Your task to perform on an android device: open app "File Manager" (install if not already installed) Image 0: 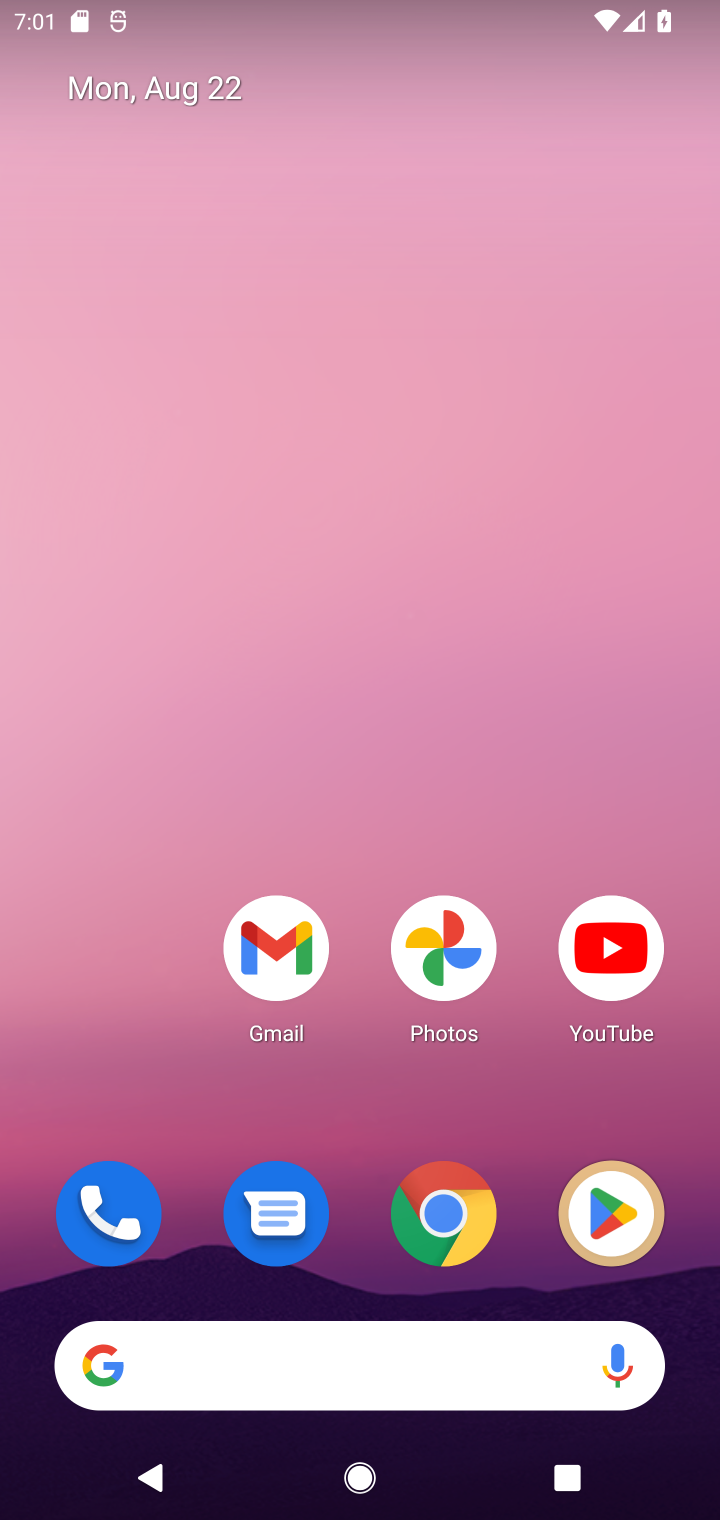
Step 0: click (602, 1206)
Your task to perform on an android device: open app "File Manager" (install if not already installed) Image 1: 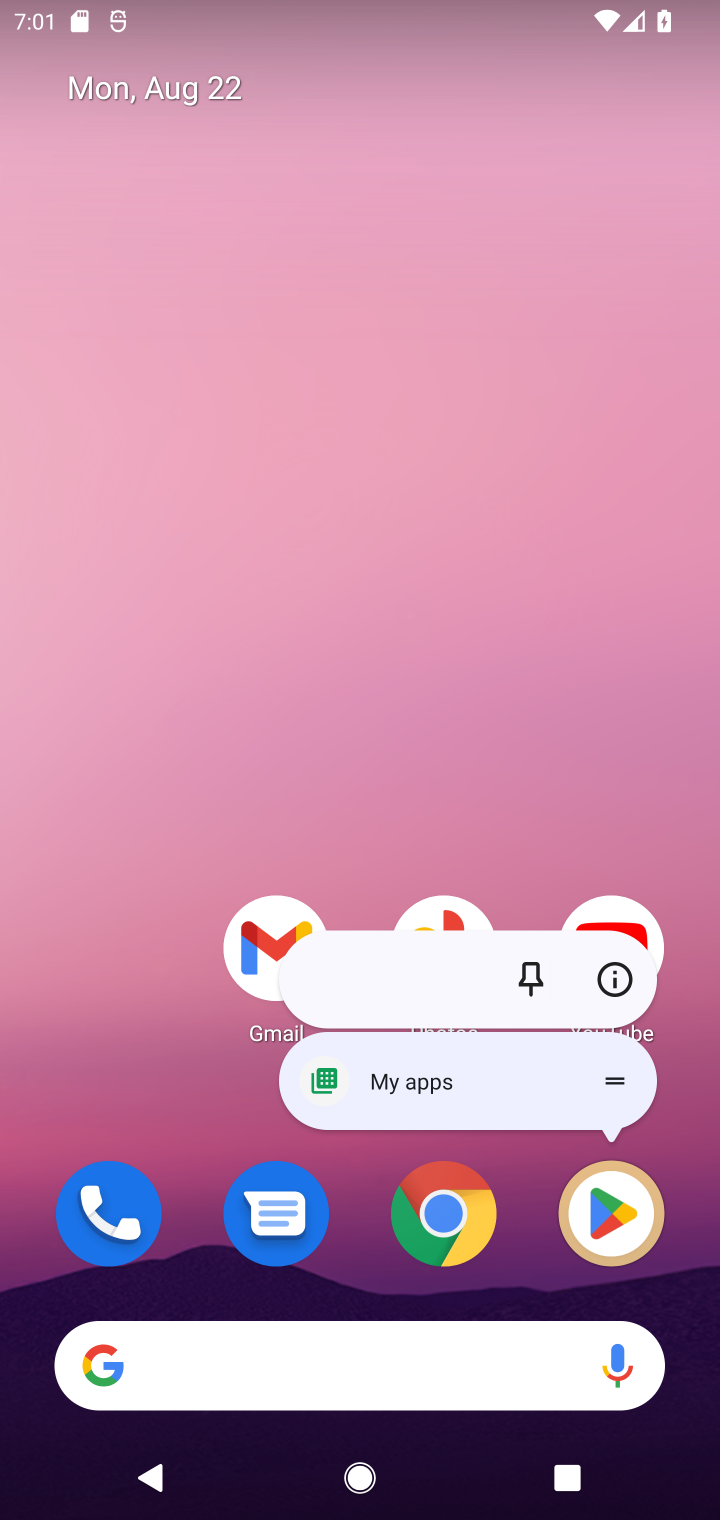
Step 1: click (604, 1190)
Your task to perform on an android device: open app "File Manager" (install if not already installed) Image 2: 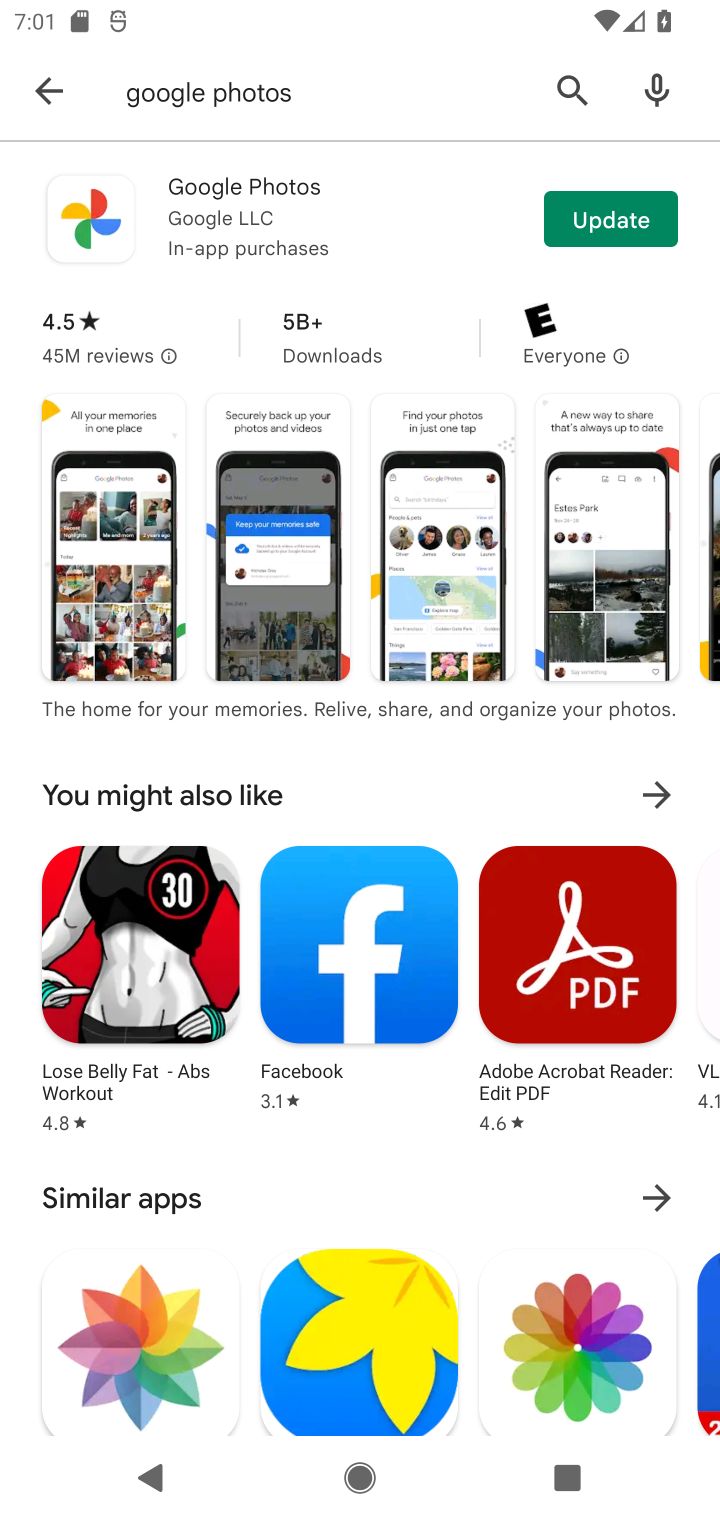
Step 2: click (557, 93)
Your task to perform on an android device: open app "File Manager" (install if not already installed) Image 3: 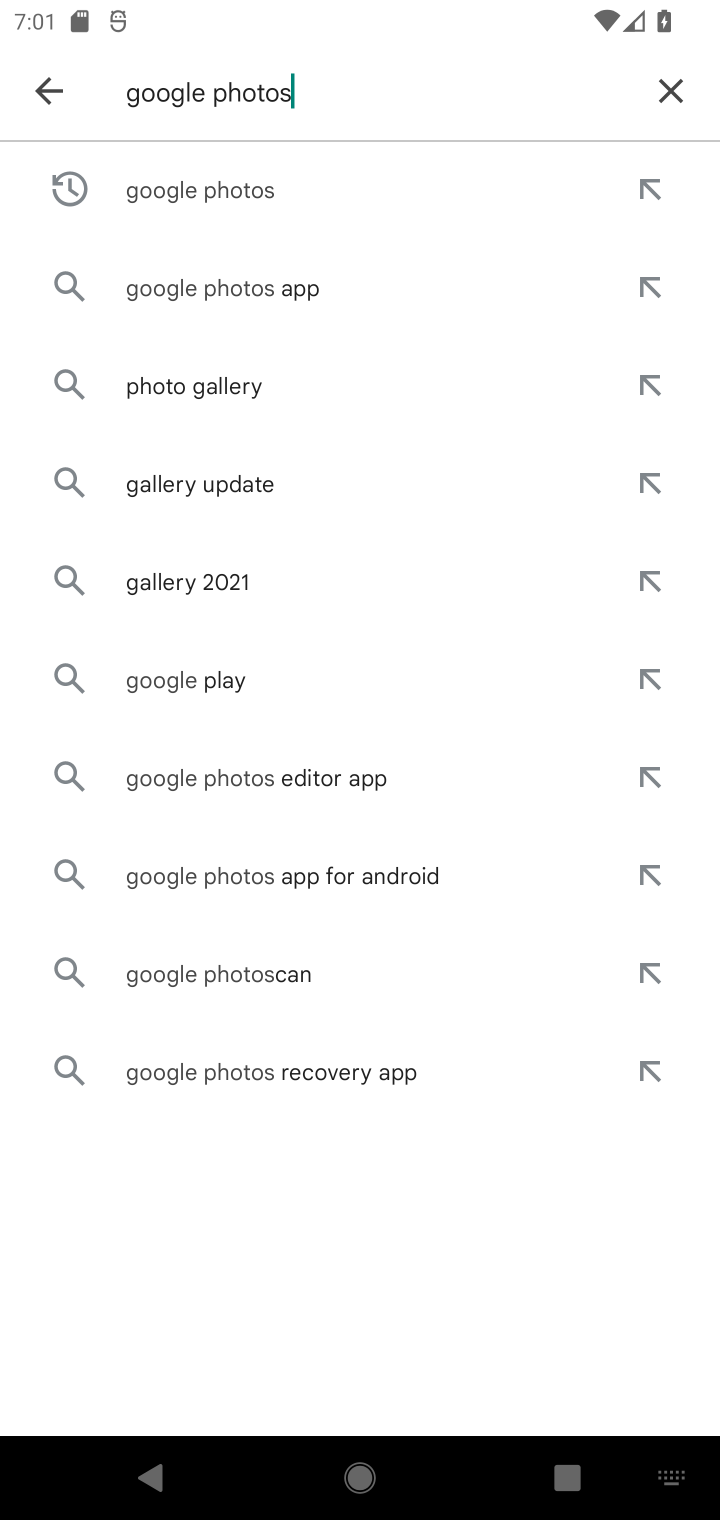
Step 3: click (654, 77)
Your task to perform on an android device: open app "File Manager" (install if not already installed) Image 4: 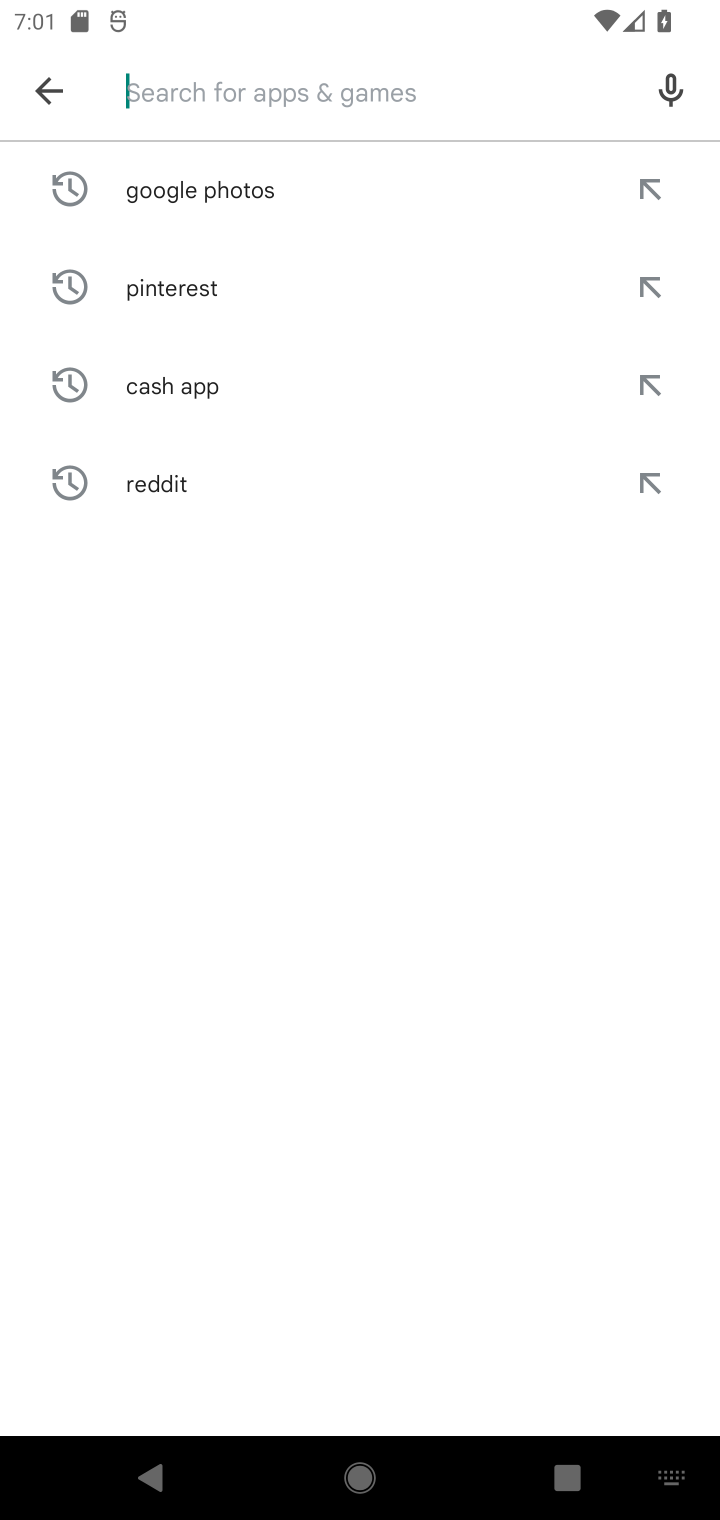
Step 4: type "File Manager"
Your task to perform on an android device: open app "File Manager" (install if not already installed) Image 5: 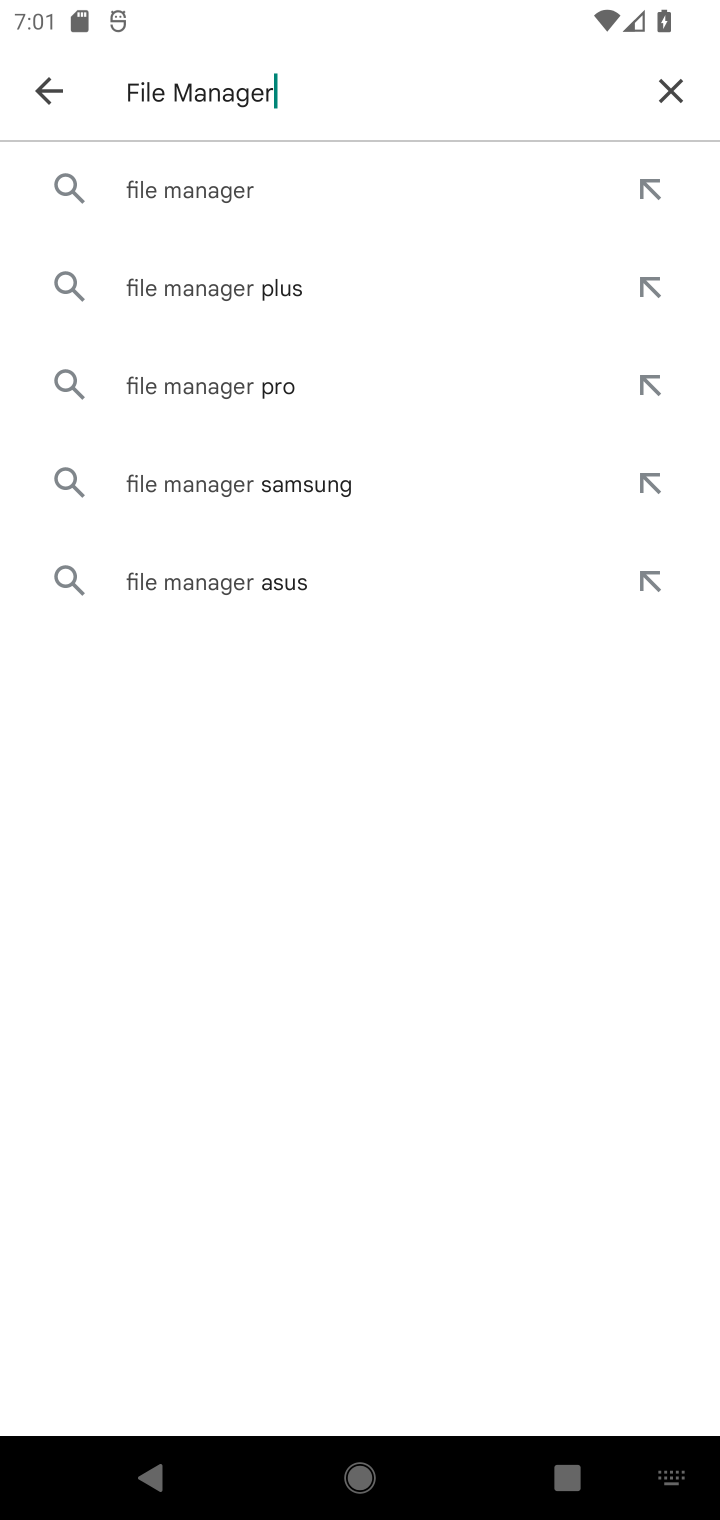
Step 5: click (175, 184)
Your task to perform on an android device: open app "File Manager" (install if not already installed) Image 6: 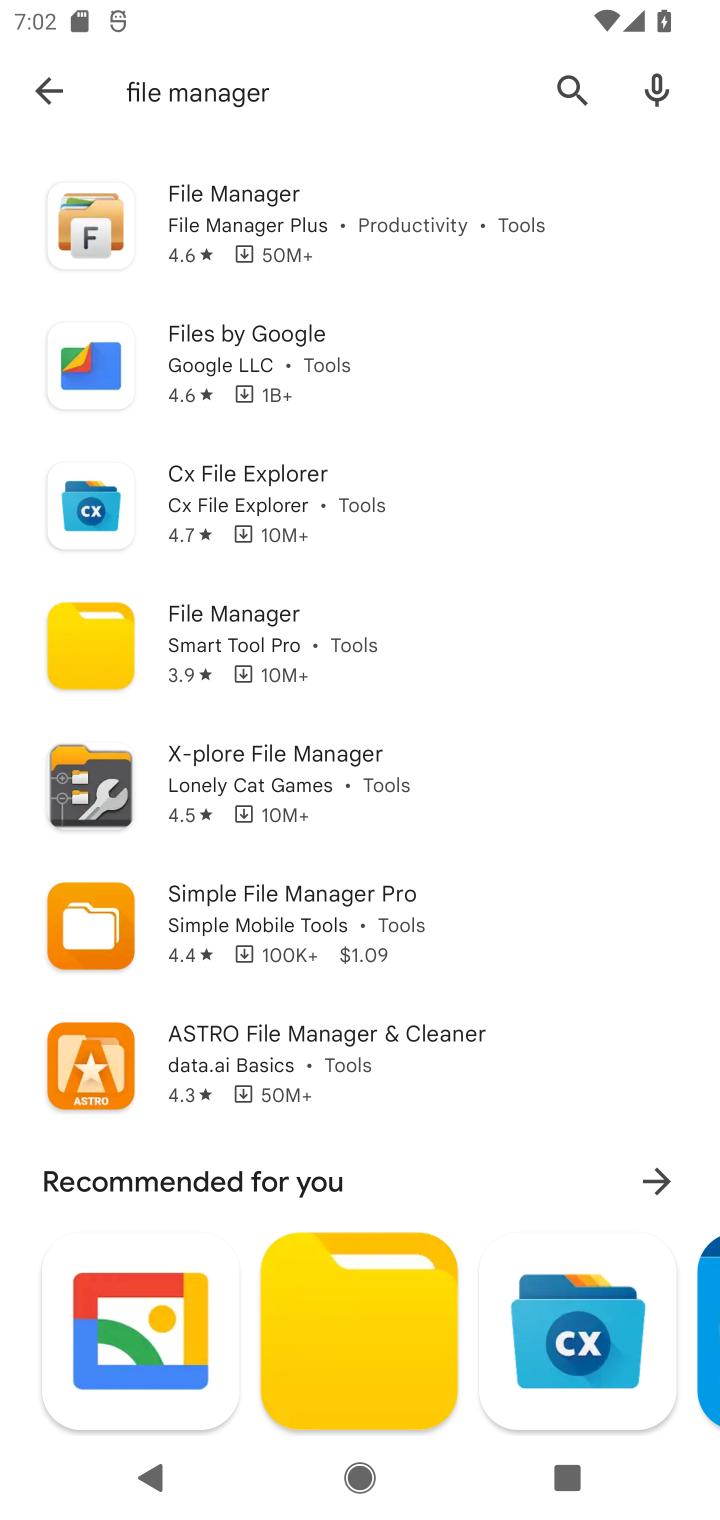
Step 6: click (183, 673)
Your task to perform on an android device: open app "File Manager" (install if not already installed) Image 7: 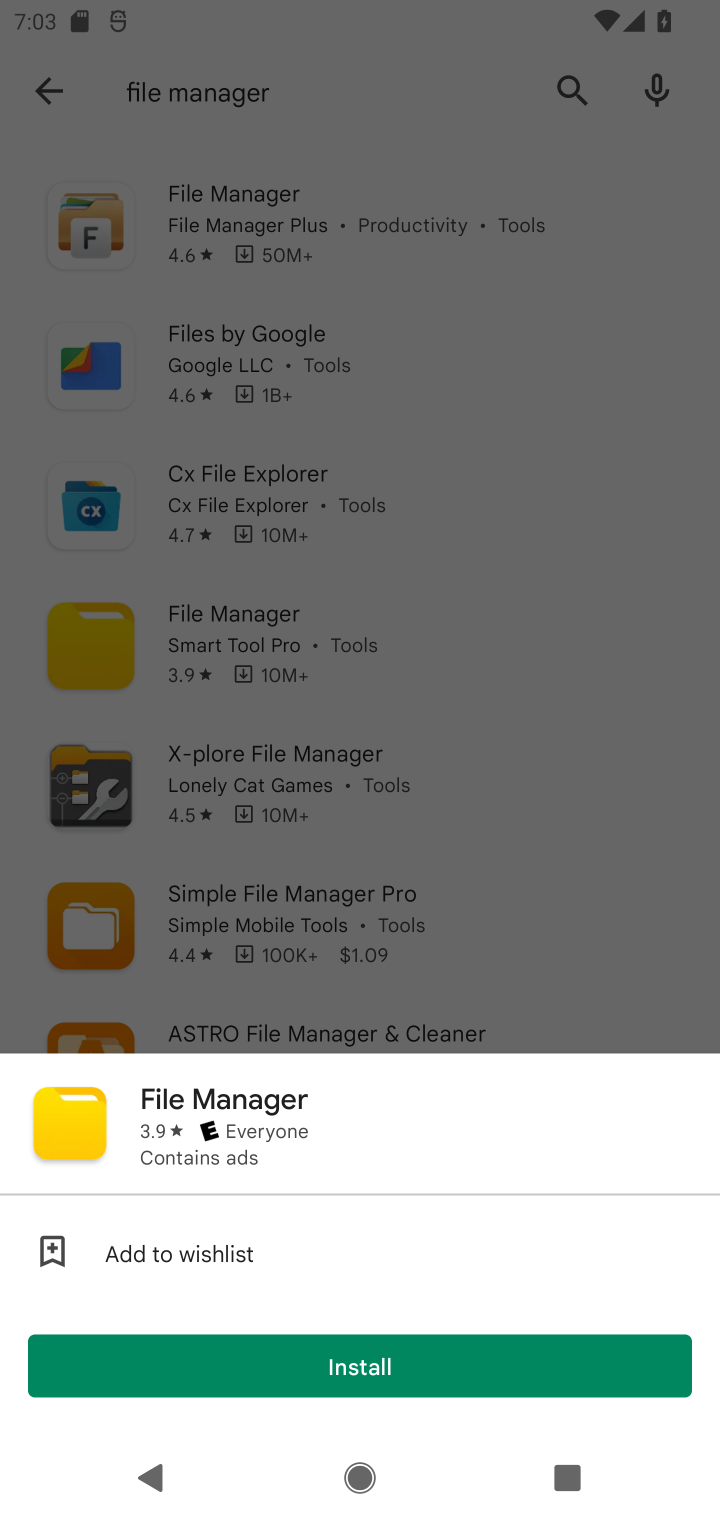
Step 7: click (399, 1378)
Your task to perform on an android device: open app "File Manager" (install if not already installed) Image 8: 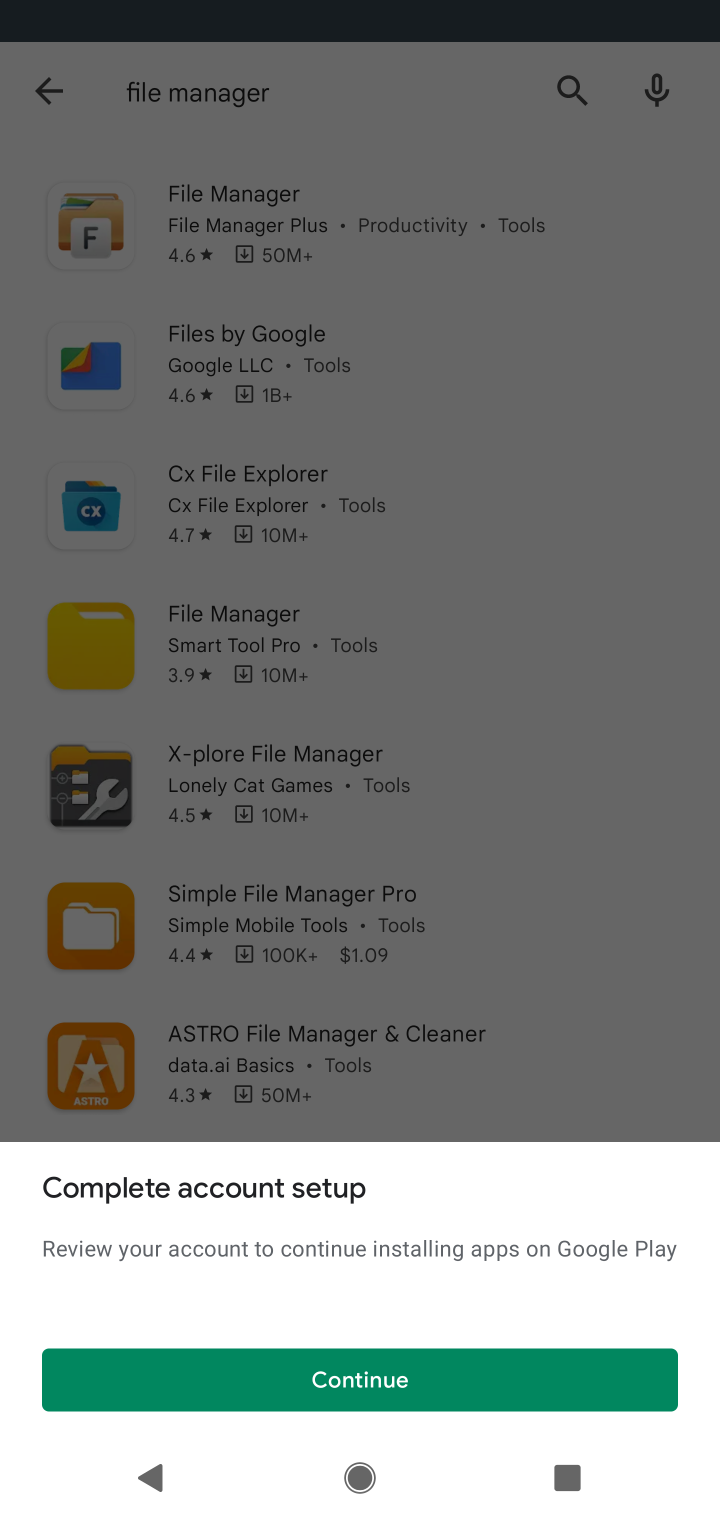
Step 8: click (426, 1410)
Your task to perform on an android device: open app "File Manager" (install if not already installed) Image 9: 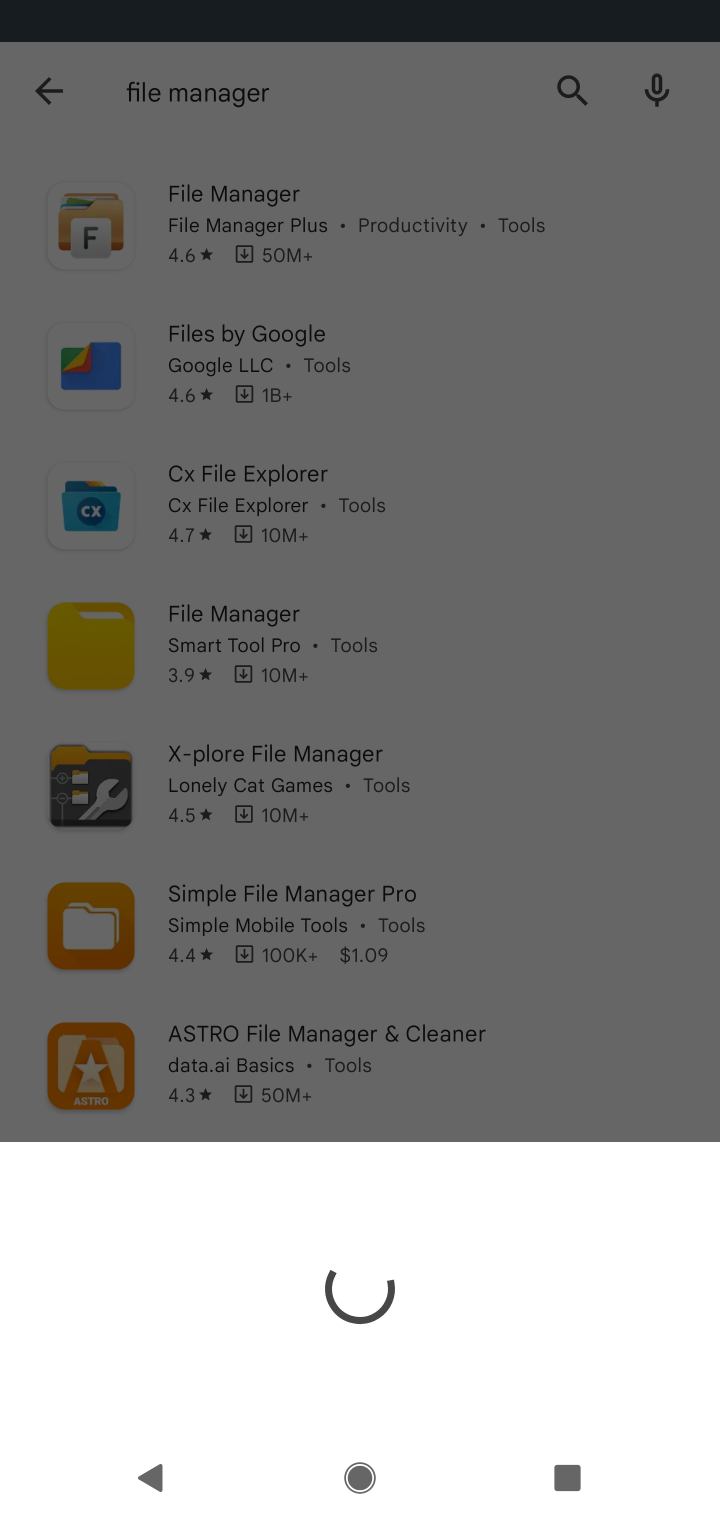
Step 9: click (419, 1384)
Your task to perform on an android device: open app "File Manager" (install if not already installed) Image 10: 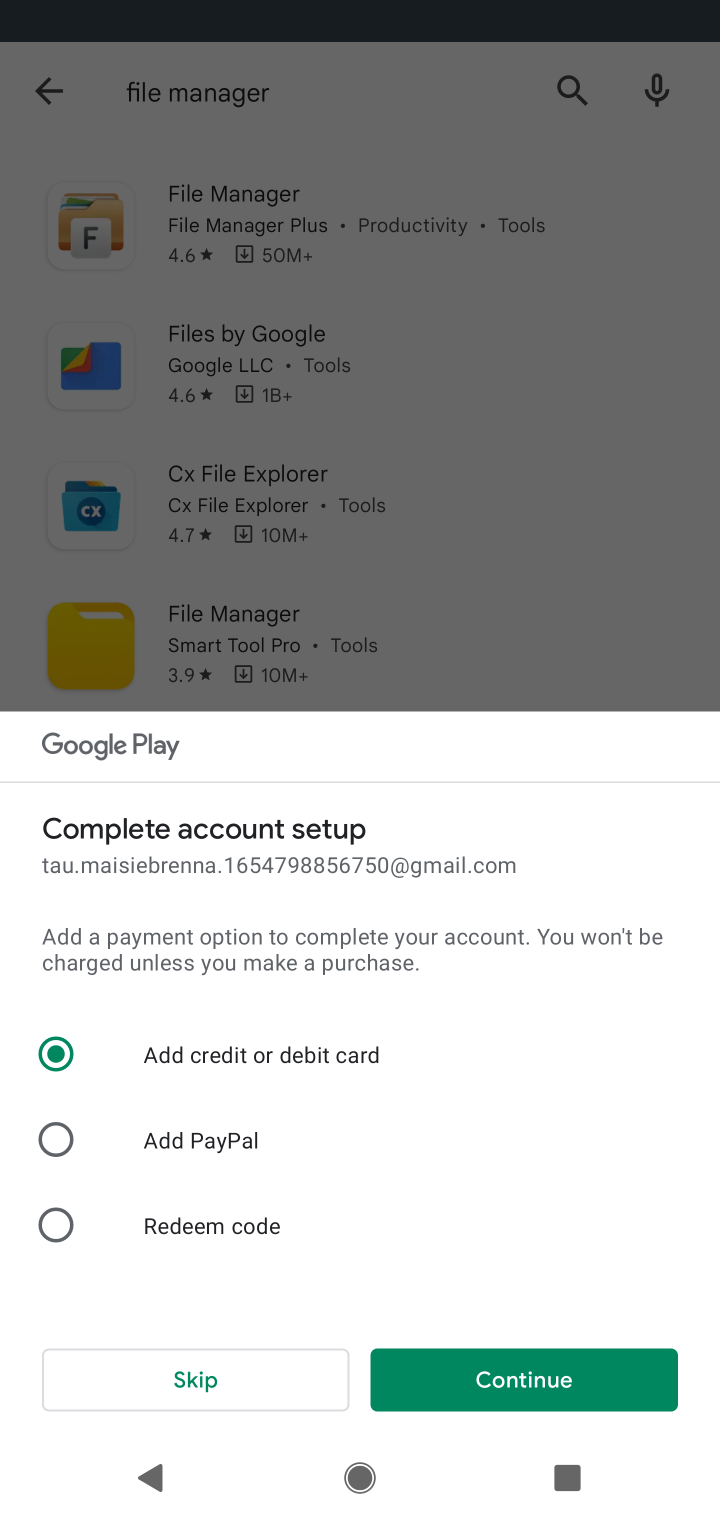
Step 10: click (219, 1379)
Your task to perform on an android device: open app "File Manager" (install if not already installed) Image 11: 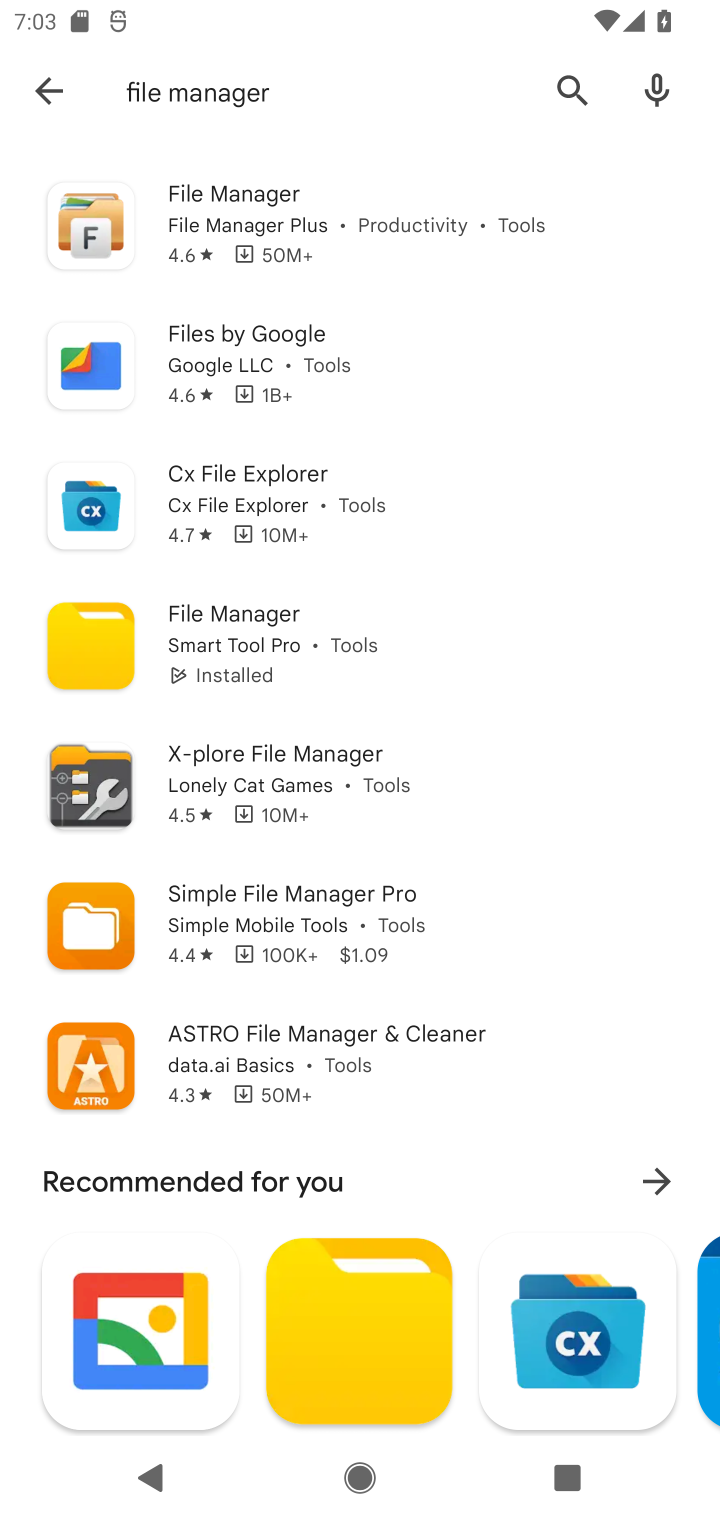
Step 11: task complete